Your task to perform on an android device: turn notification dots off Image 0: 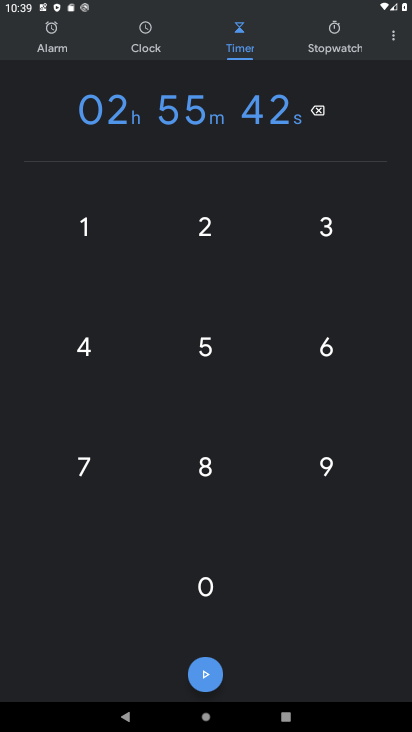
Step 0: press home button
Your task to perform on an android device: turn notification dots off Image 1: 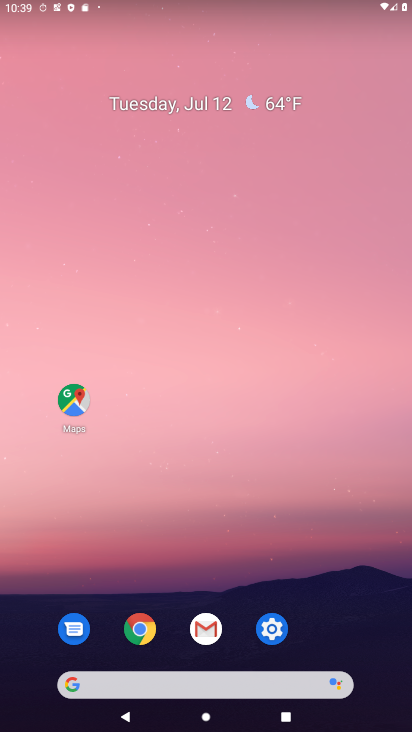
Step 1: click (272, 626)
Your task to perform on an android device: turn notification dots off Image 2: 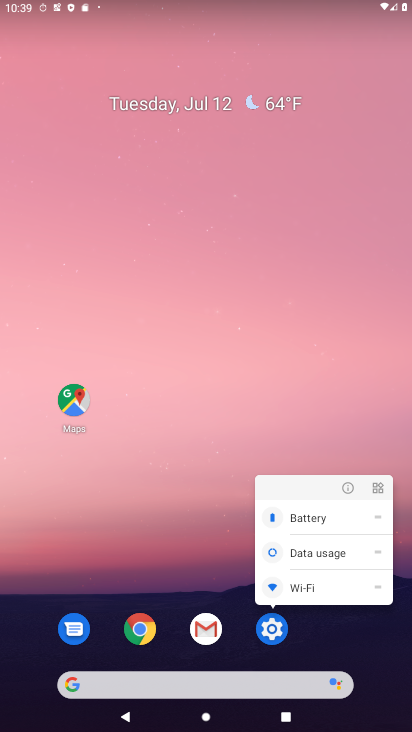
Step 2: click (269, 622)
Your task to perform on an android device: turn notification dots off Image 3: 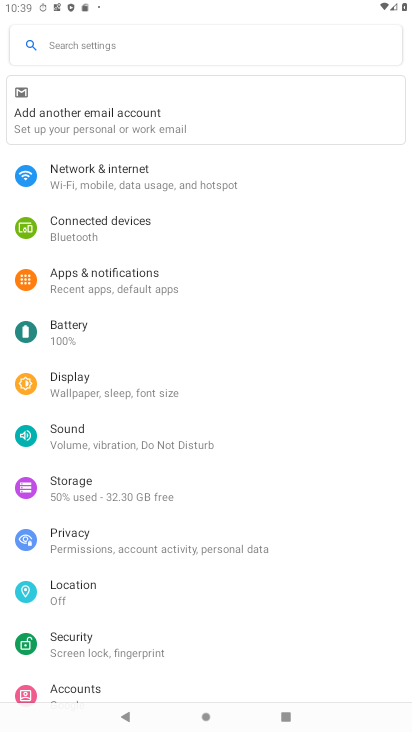
Step 3: click (95, 45)
Your task to perform on an android device: turn notification dots off Image 4: 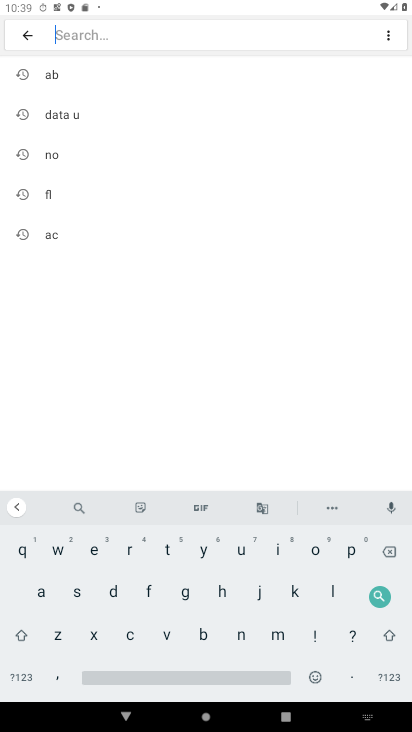
Step 4: click (62, 153)
Your task to perform on an android device: turn notification dots off Image 5: 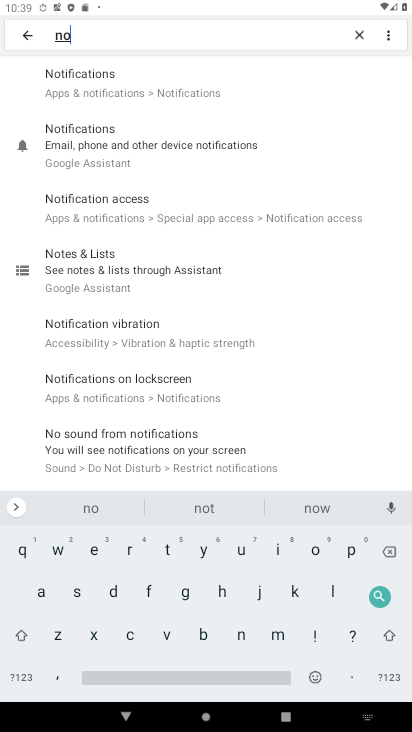
Step 5: click (148, 102)
Your task to perform on an android device: turn notification dots off Image 6: 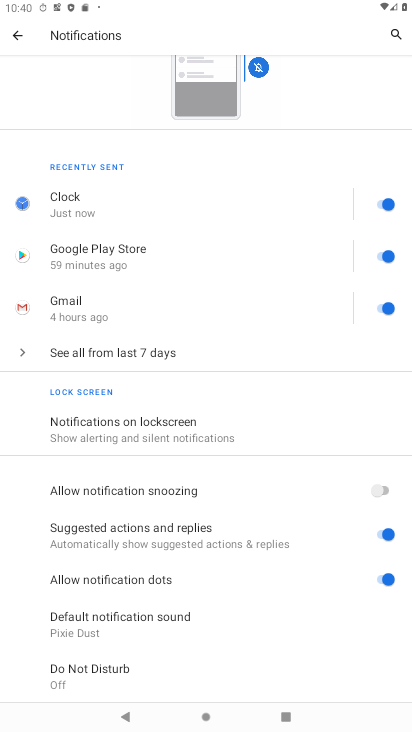
Step 6: click (373, 564)
Your task to perform on an android device: turn notification dots off Image 7: 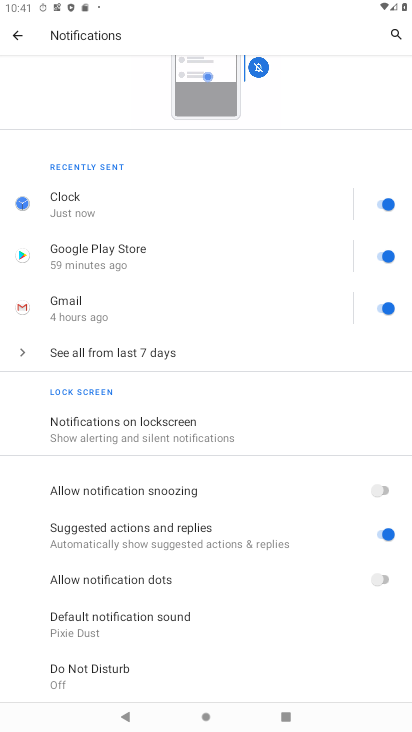
Step 7: task complete